Your task to perform on an android device: Open Chrome and go to settings Image 0: 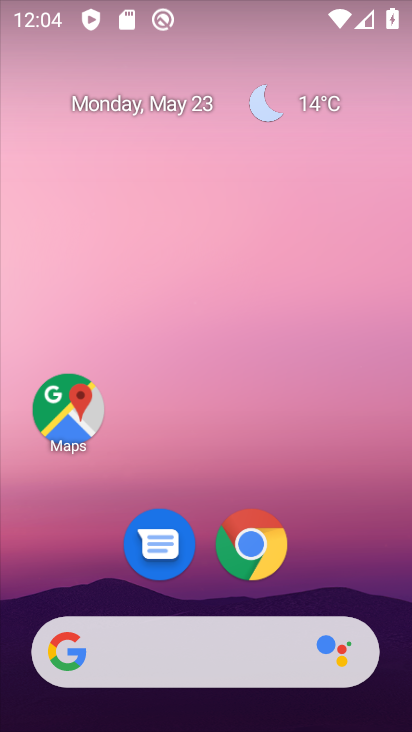
Step 0: click (257, 557)
Your task to perform on an android device: Open Chrome and go to settings Image 1: 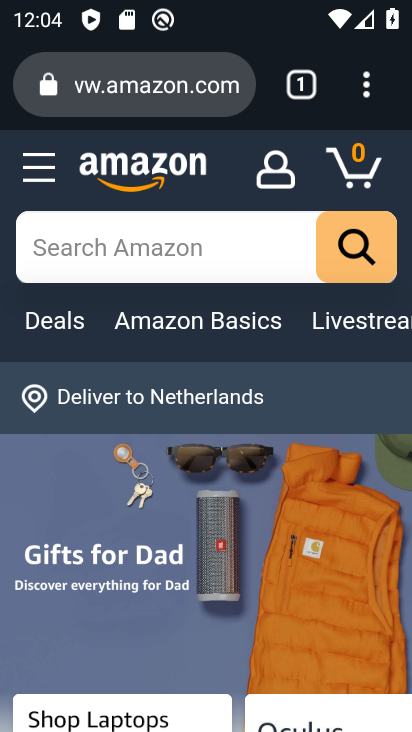
Step 1: task complete